Your task to perform on an android device: Go to Amazon Image 0: 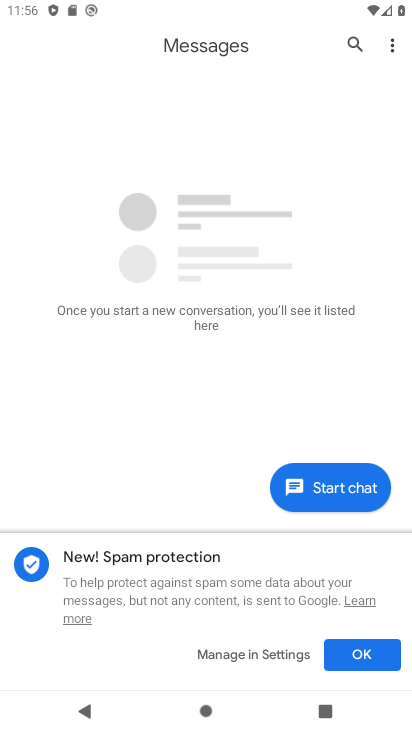
Step 0: press back button
Your task to perform on an android device: Go to Amazon Image 1: 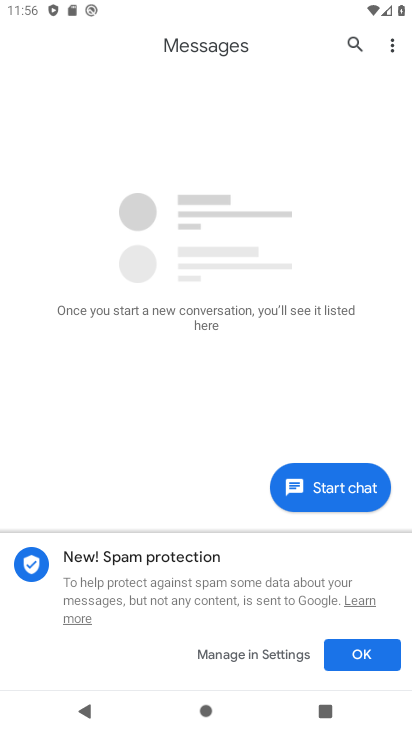
Step 1: press back button
Your task to perform on an android device: Go to Amazon Image 2: 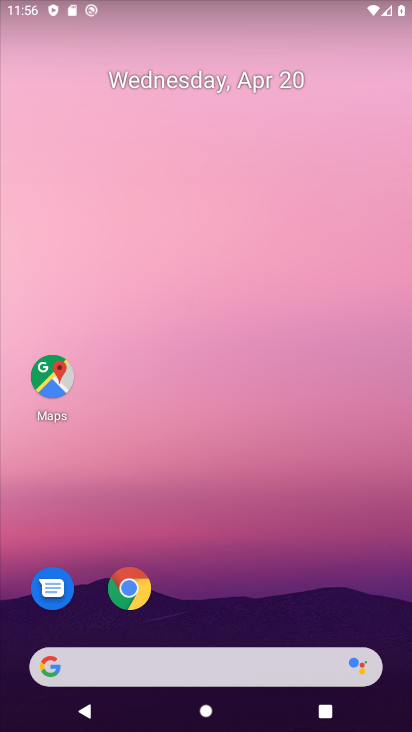
Step 2: press back button
Your task to perform on an android device: Go to Amazon Image 3: 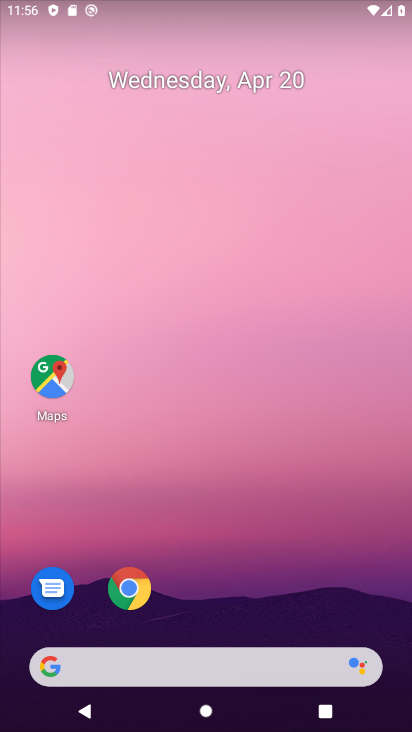
Step 3: click (142, 601)
Your task to perform on an android device: Go to Amazon Image 4: 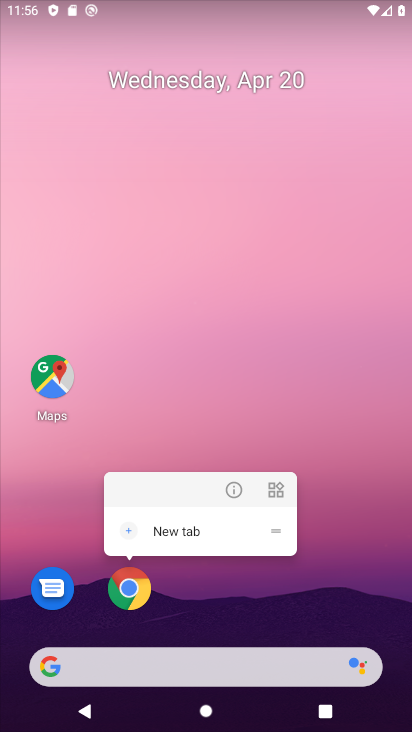
Step 4: click (128, 594)
Your task to perform on an android device: Go to Amazon Image 5: 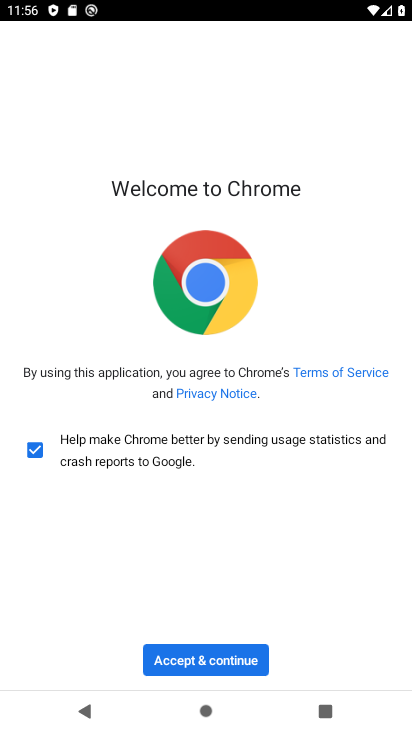
Step 5: click (229, 671)
Your task to perform on an android device: Go to Amazon Image 6: 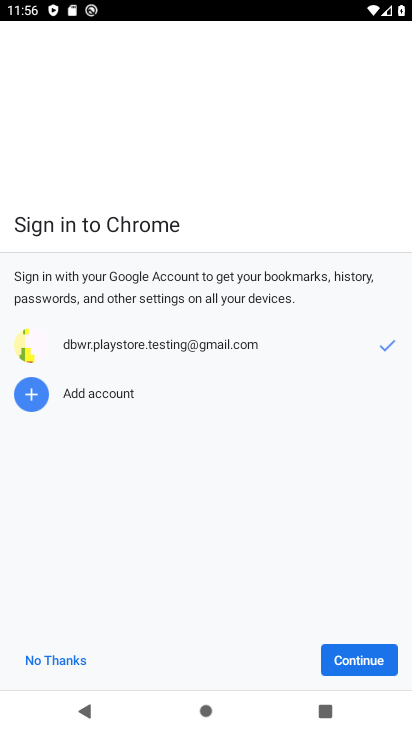
Step 6: click (387, 666)
Your task to perform on an android device: Go to Amazon Image 7: 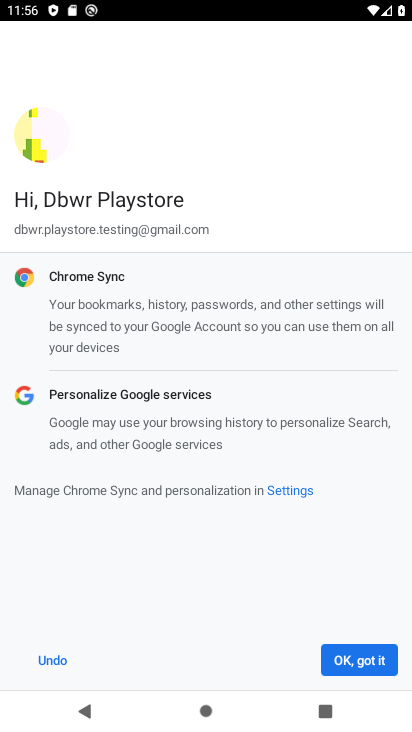
Step 7: click (387, 666)
Your task to perform on an android device: Go to Amazon Image 8: 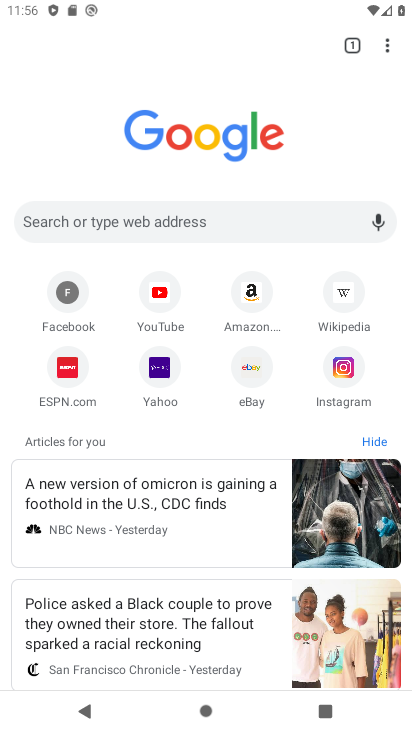
Step 8: click (250, 313)
Your task to perform on an android device: Go to Amazon Image 9: 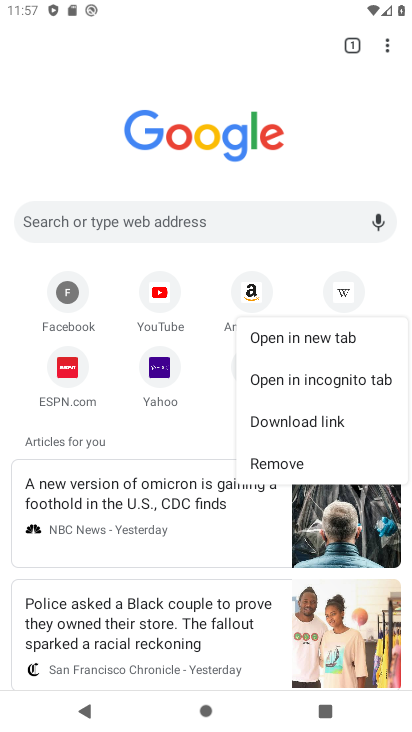
Step 9: click (256, 305)
Your task to perform on an android device: Go to Amazon Image 10: 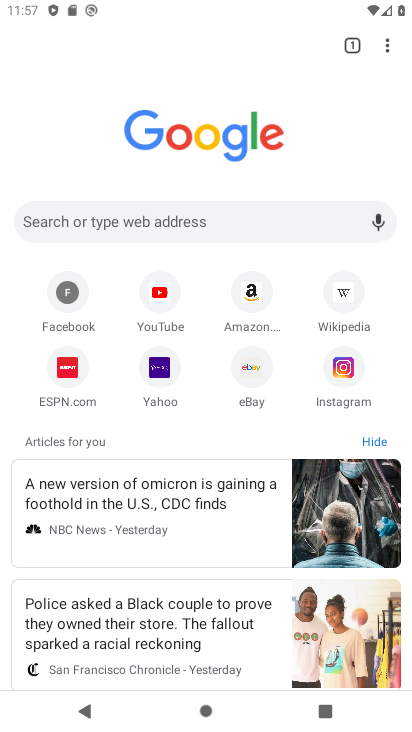
Step 10: click (265, 306)
Your task to perform on an android device: Go to Amazon Image 11: 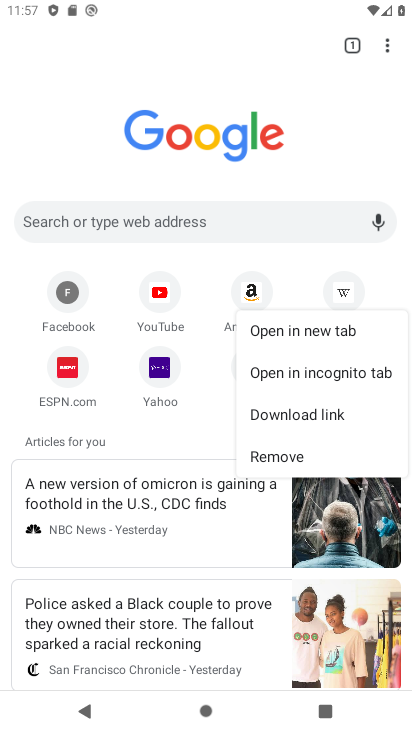
Step 11: click (255, 301)
Your task to perform on an android device: Go to Amazon Image 12: 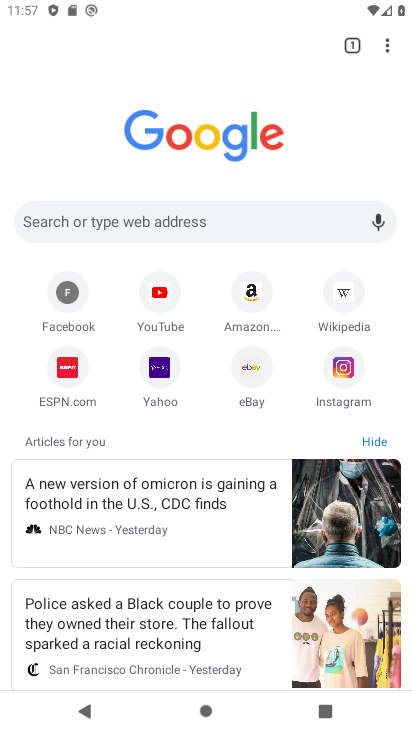
Step 12: click (264, 300)
Your task to perform on an android device: Go to Amazon Image 13: 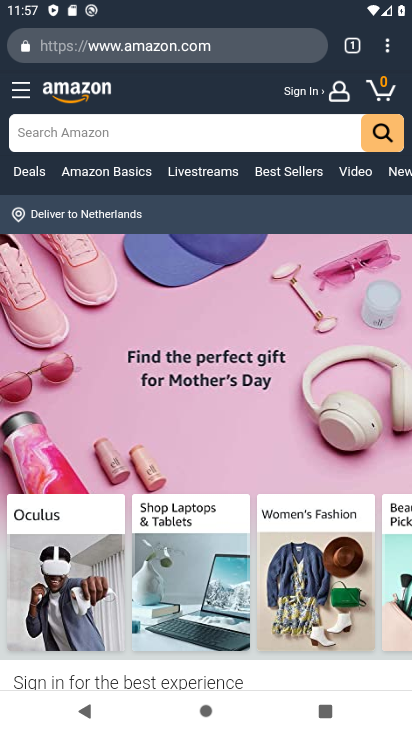
Step 13: task complete